Your task to perform on an android device: Search for "panasonic triple a" on amazon, select the first entry, add it to the cart, then select checkout. Image 0: 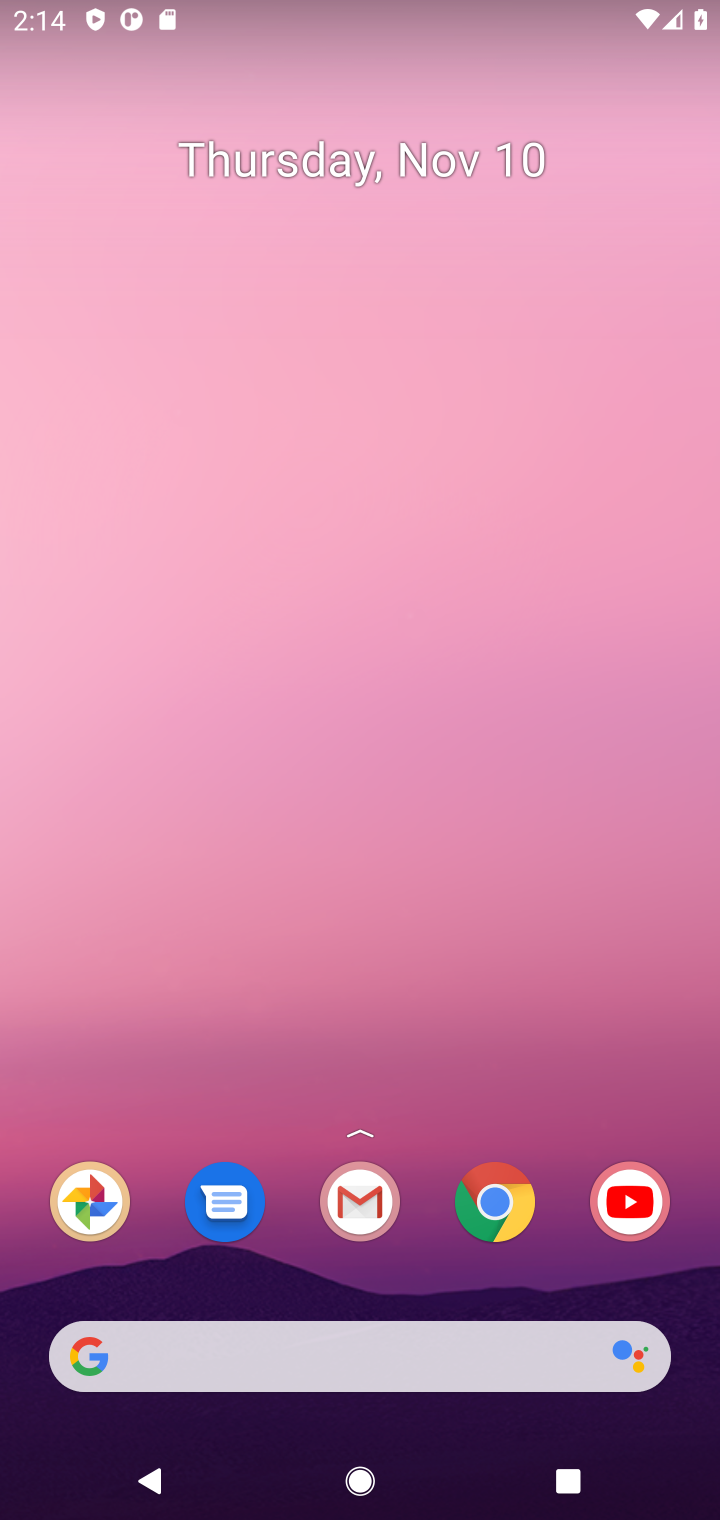
Step 0: click (502, 1198)
Your task to perform on an android device: Search for "panasonic triple a" on amazon, select the first entry, add it to the cart, then select checkout. Image 1: 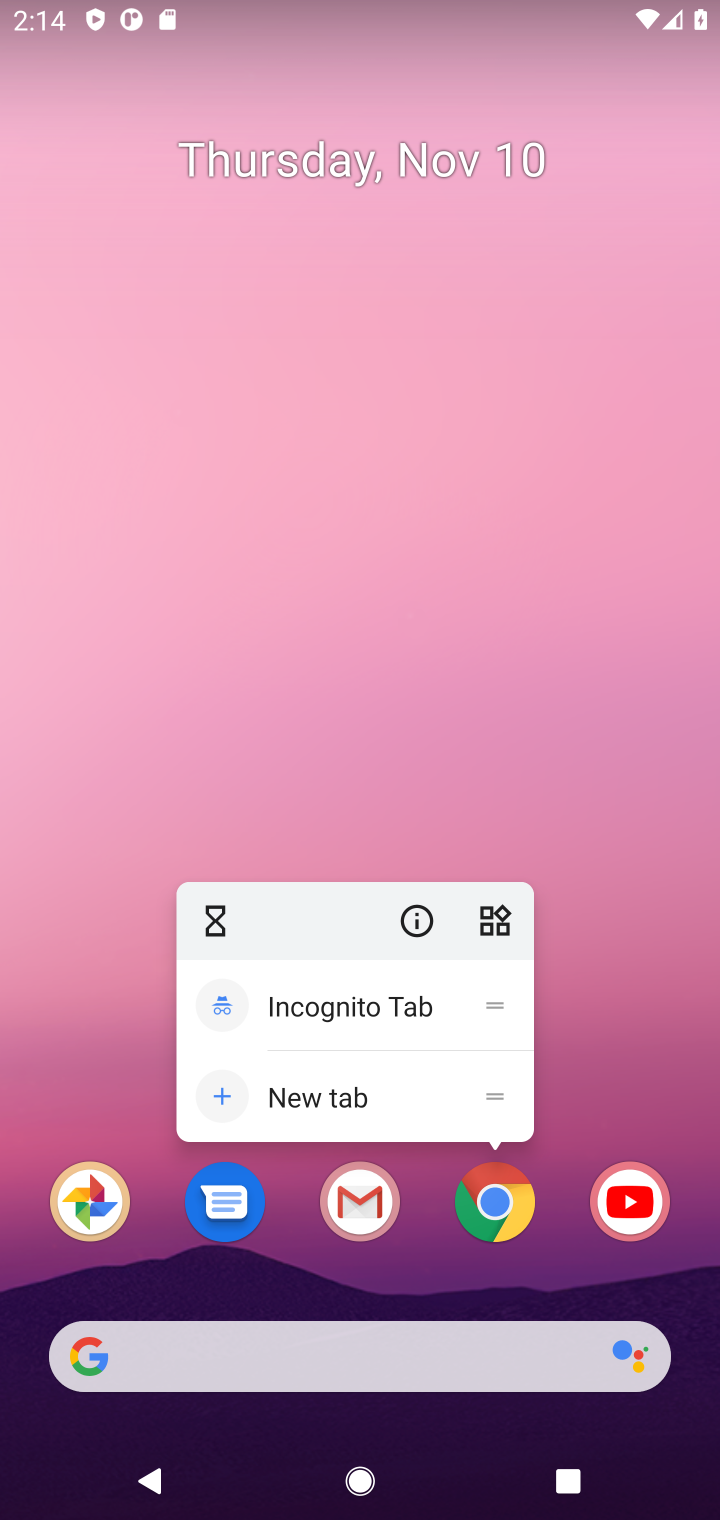
Step 1: click (498, 1218)
Your task to perform on an android device: Search for "panasonic triple a" on amazon, select the first entry, add it to the cart, then select checkout. Image 2: 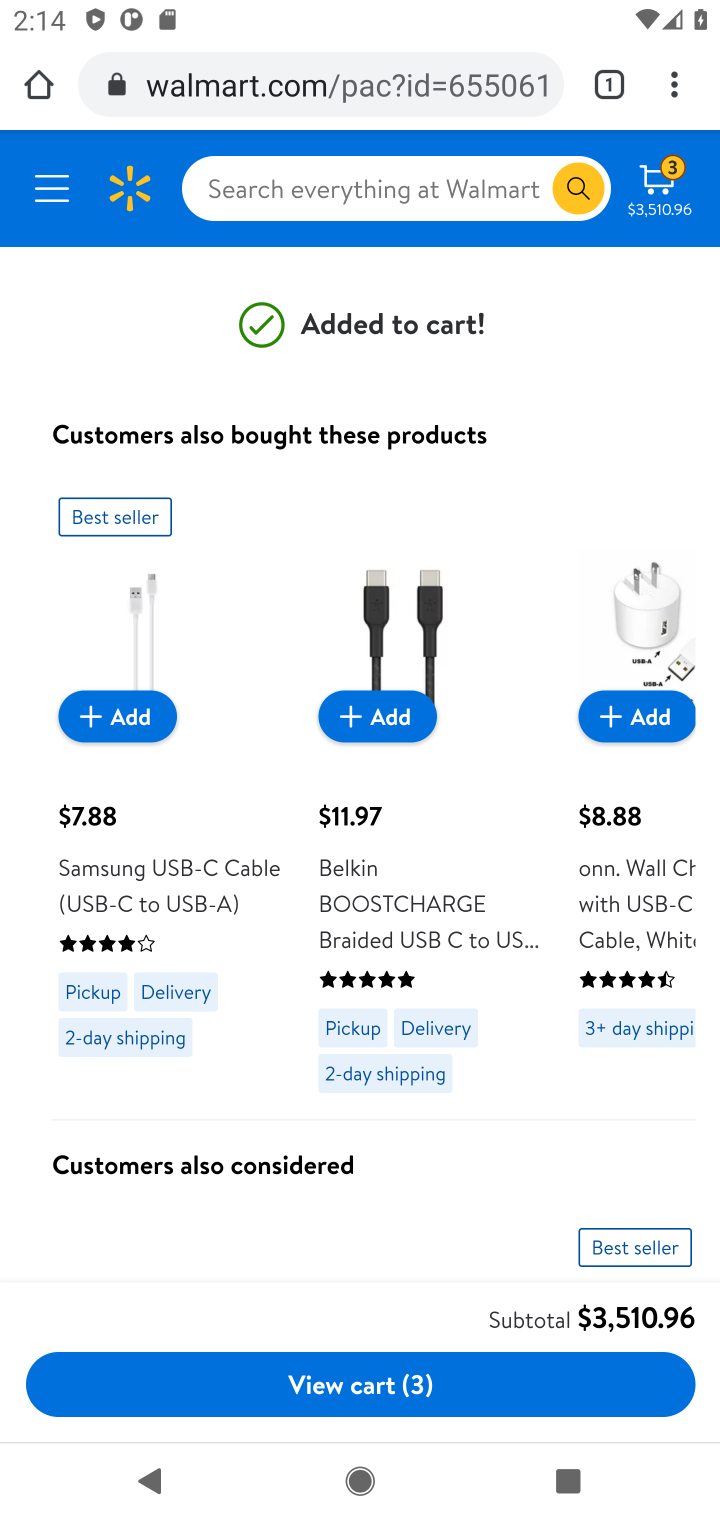
Step 2: click (333, 83)
Your task to perform on an android device: Search for "panasonic triple a" on amazon, select the first entry, add it to the cart, then select checkout. Image 3: 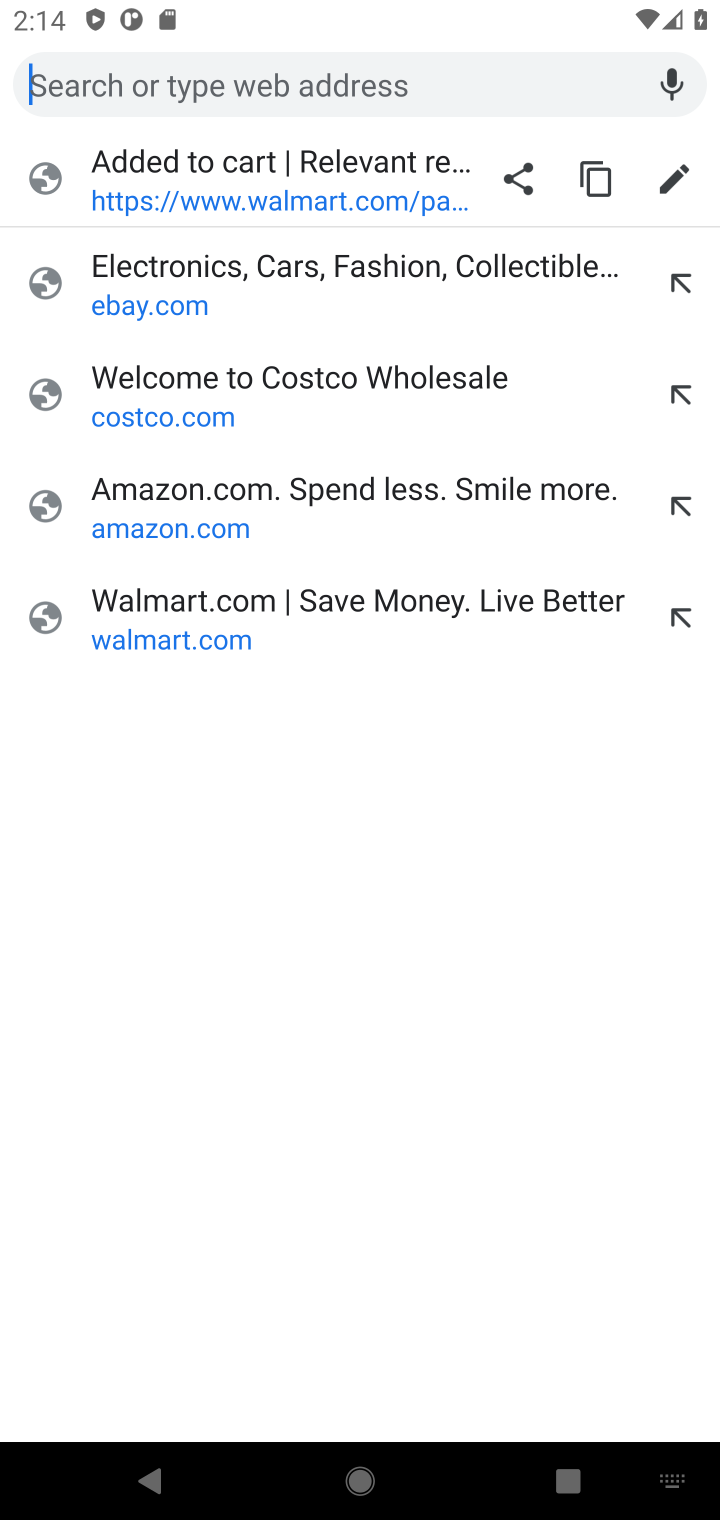
Step 3: click (183, 494)
Your task to perform on an android device: Search for "panasonic triple a" on amazon, select the first entry, add it to the cart, then select checkout. Image 4: 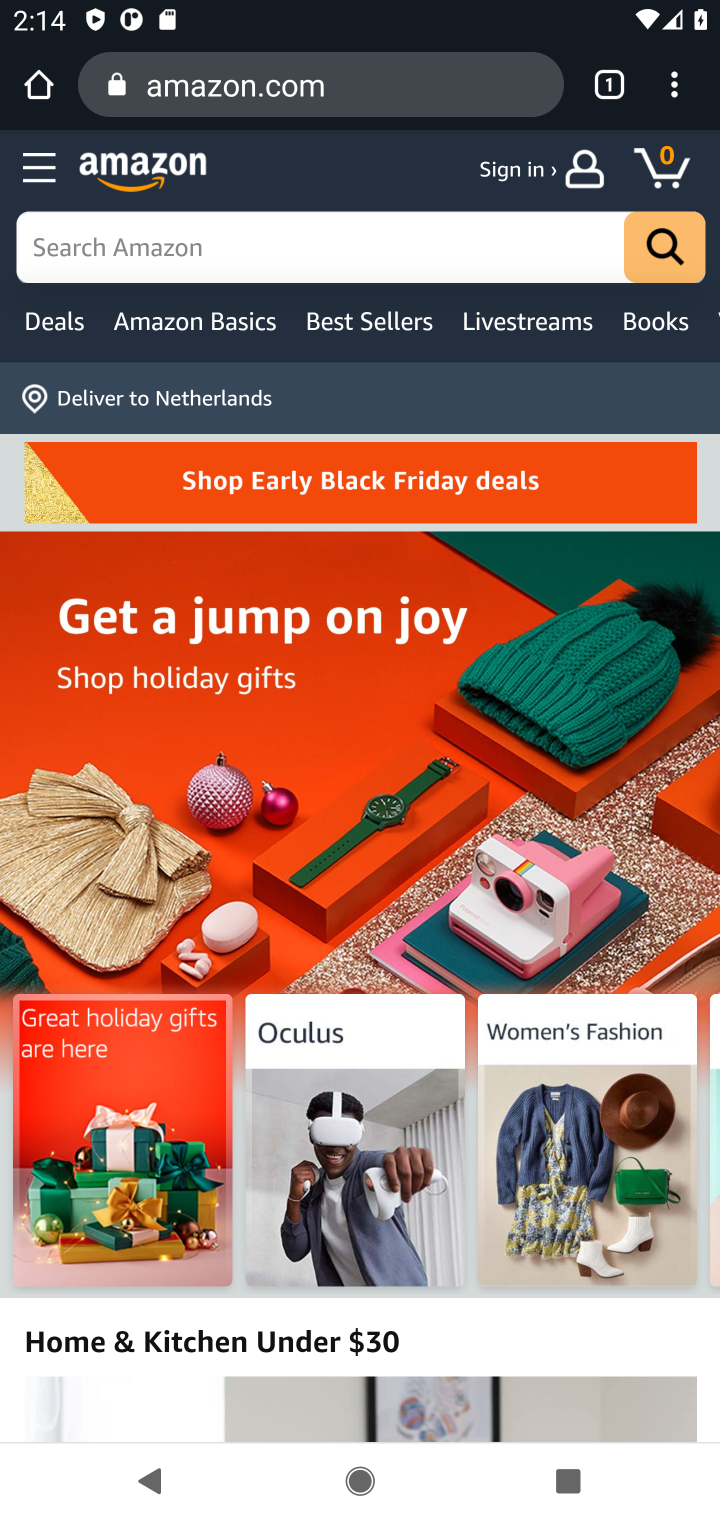
Step 4: click (443, 238)
Your task to perform on an android device: Search for "panasonic triple a" on amazon, select the first entry, add it to the cart, then select checkout. Image 5: 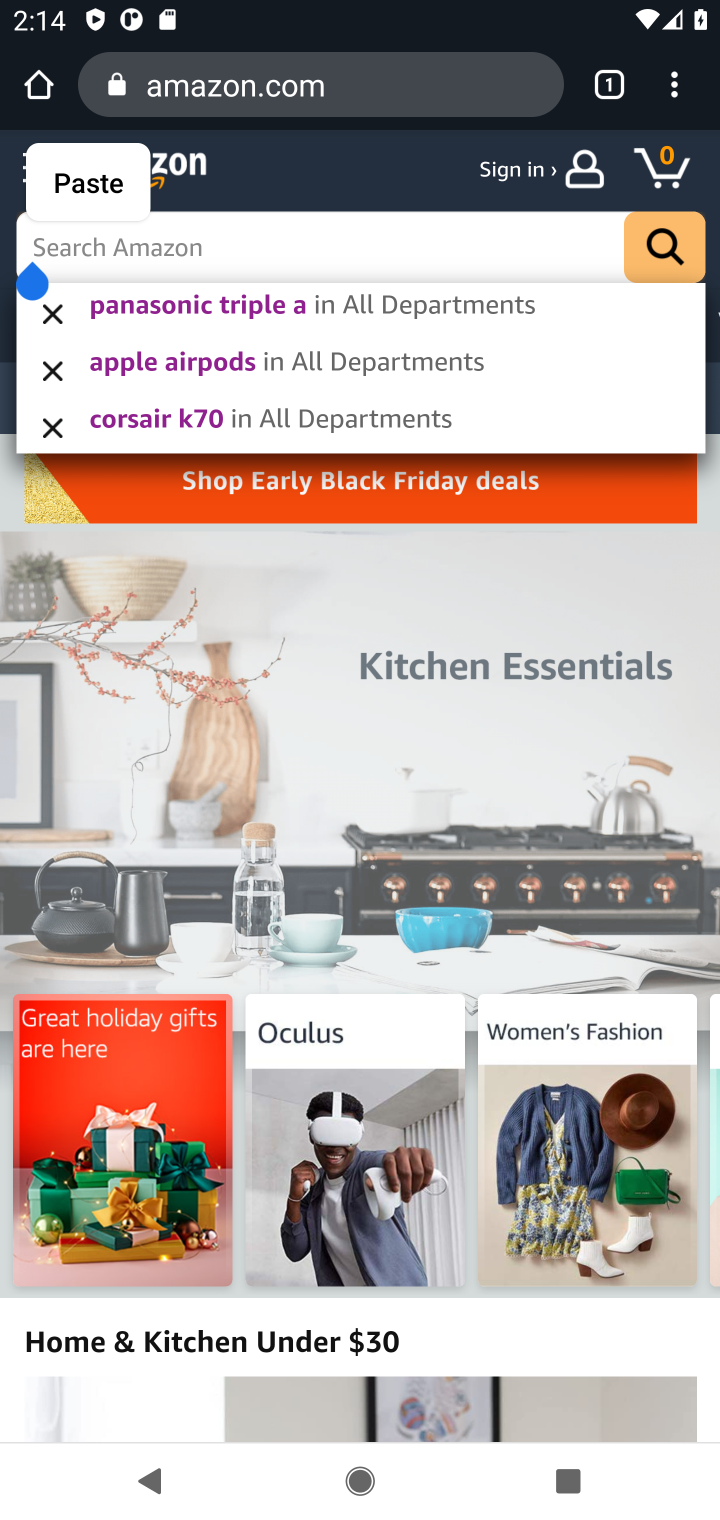
Step 5: press enter
Your task to perform on an android device: Search for "panasonic triple a" on amazon, select the first entry, add it to the cart, then select checkout. Image 6: 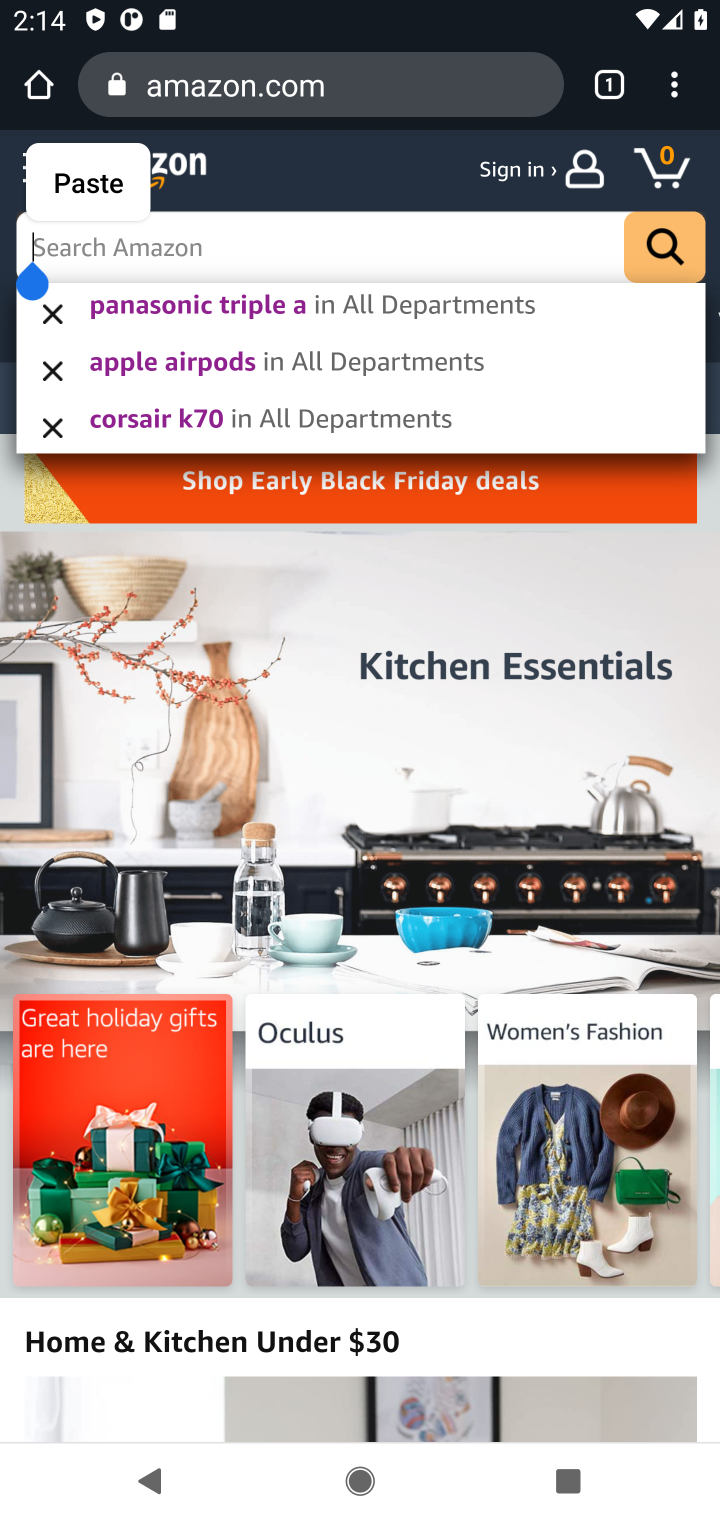
Step 6: type "panasonic triple a"
Your task to perform on an android device: Search for "panasonic triple a" on amazon, select the first entry, add it to the cart, then select checkout. Image 7: 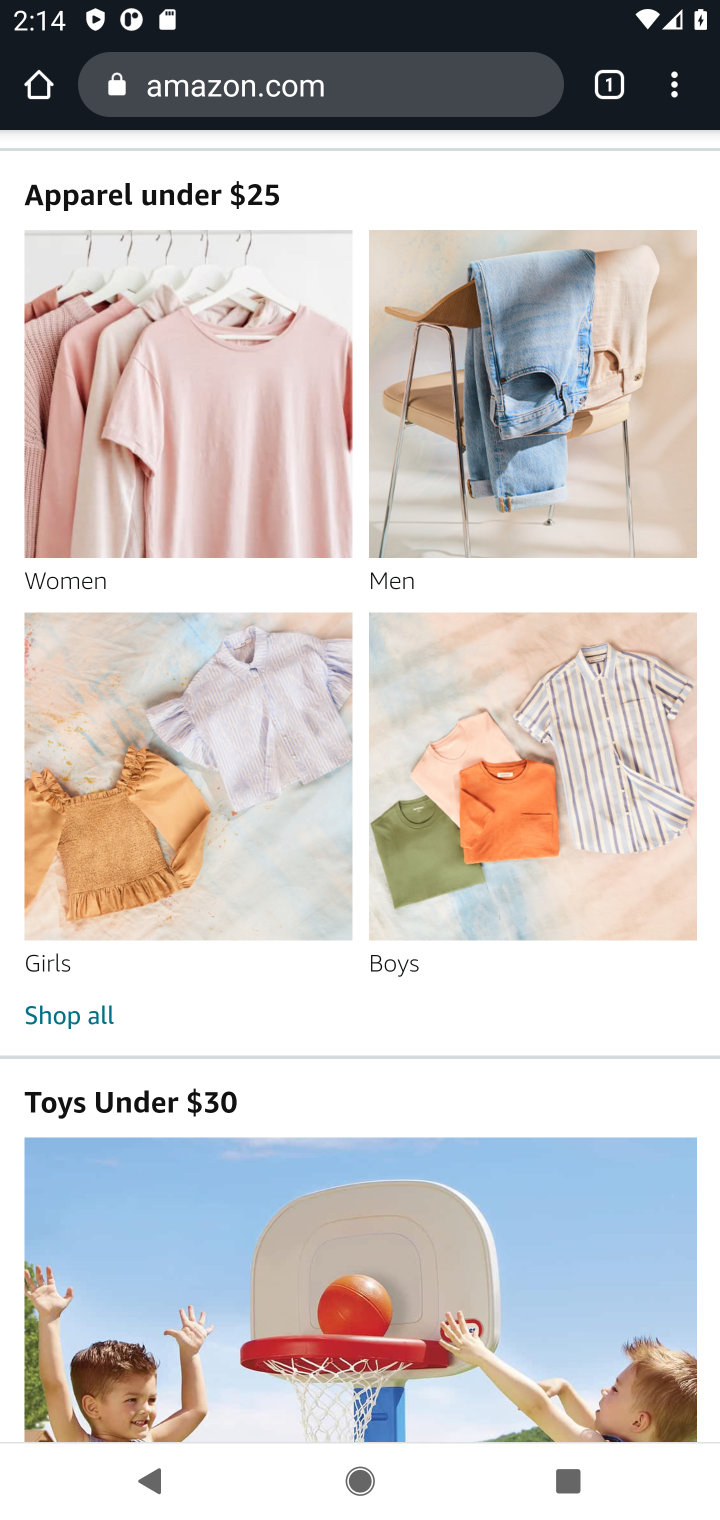
Step 7: drag from (402, 508) to (440, 925)
Your task to perform on an android device: Search for "panasonic triple a" on amazon, select the first entry, add it to the cart, then select checkout. Image 8: 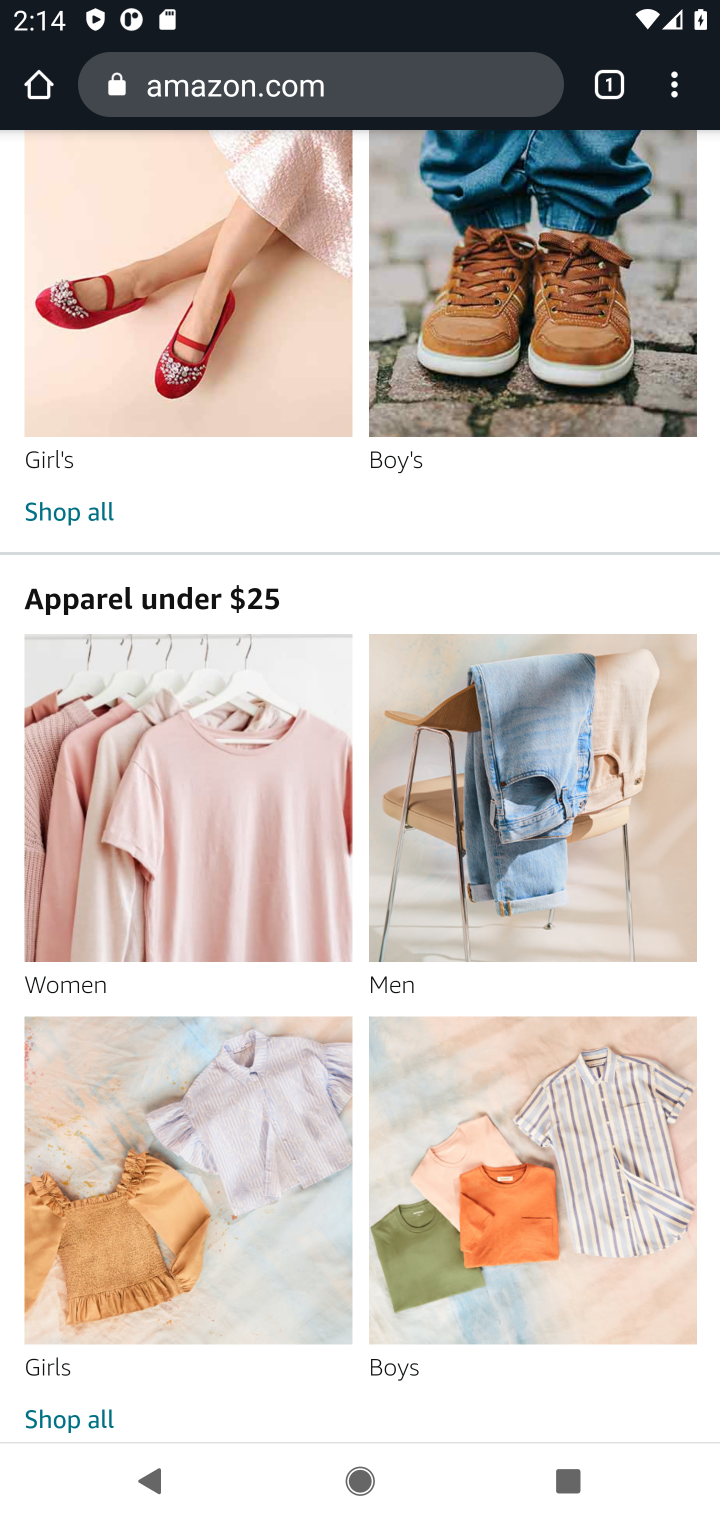
Step 8: drag from (315, 958) to (285, 1215)
Your task to perform on an android device: Search for "panasonic triple a" on amazon, select the first entry, add it to the cart, then select checkout. Image 9: 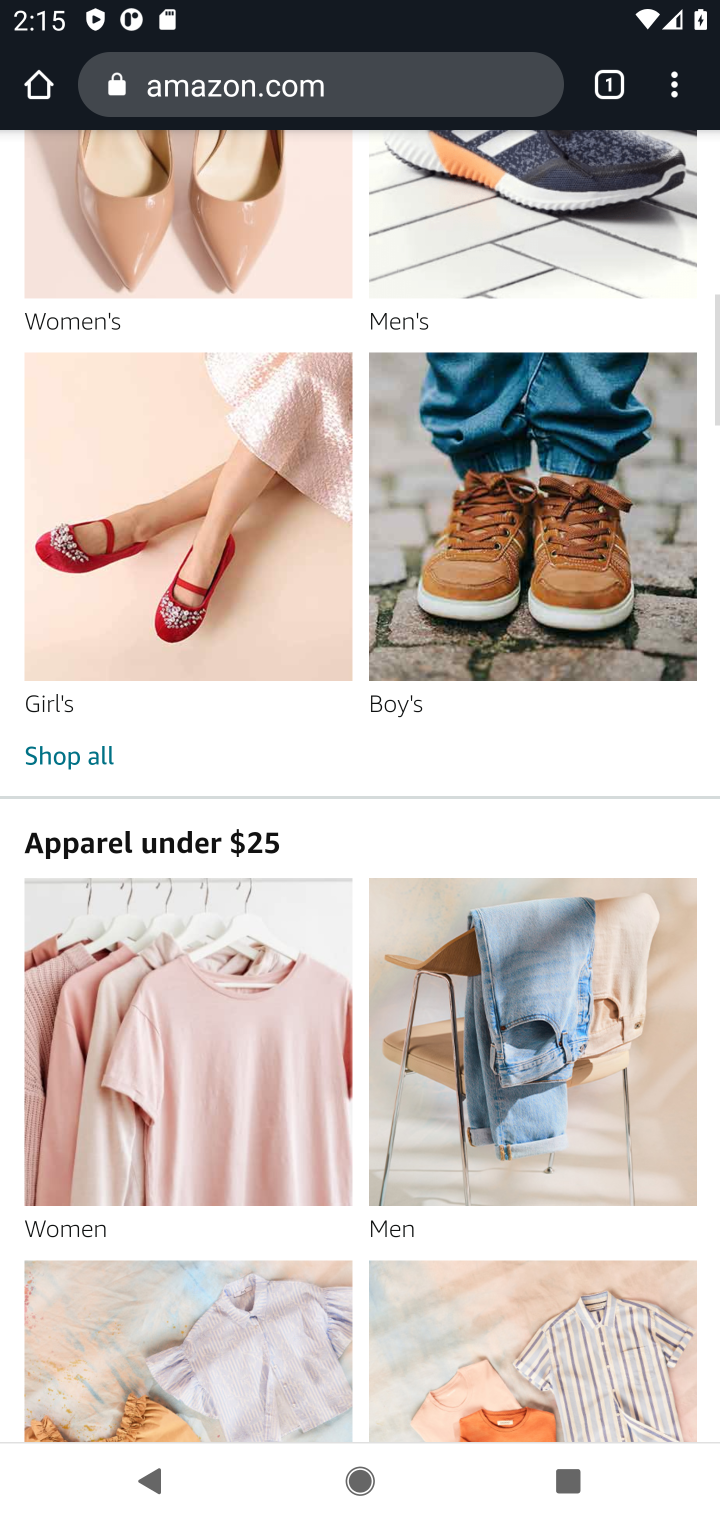
Step 9: drag from (429, 490) to (416, 1171)
Your task to perform on an android device: Search for "panasonic triple a" on amazon, select the first entry, add it to the cart, then select checkout. Image 10: 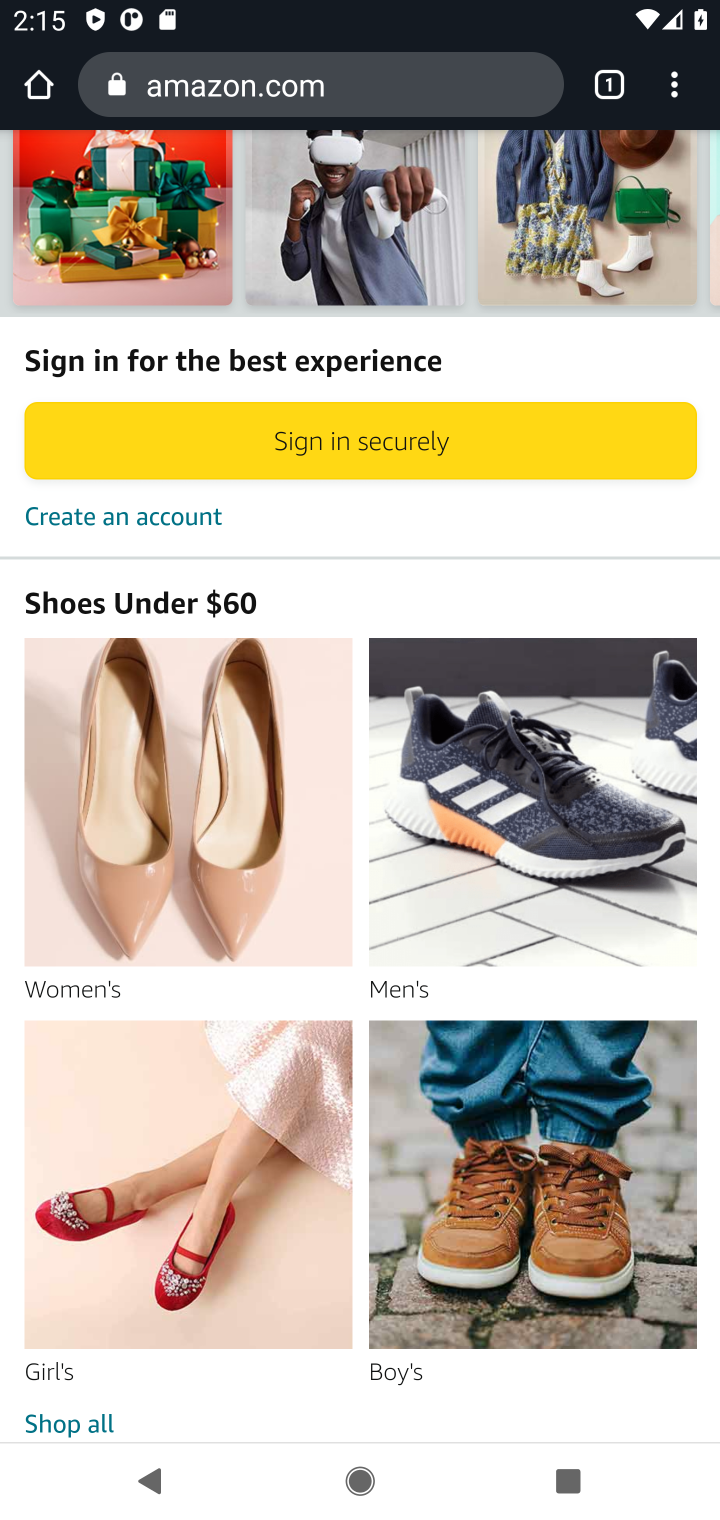
Step 10: drag from (320, 1040) to (317, 1266)
Your task to perform on an android device: Search for "panasonic triple a" on amazon, select the first entry, add it to the cart, then select checkout. Image 11: 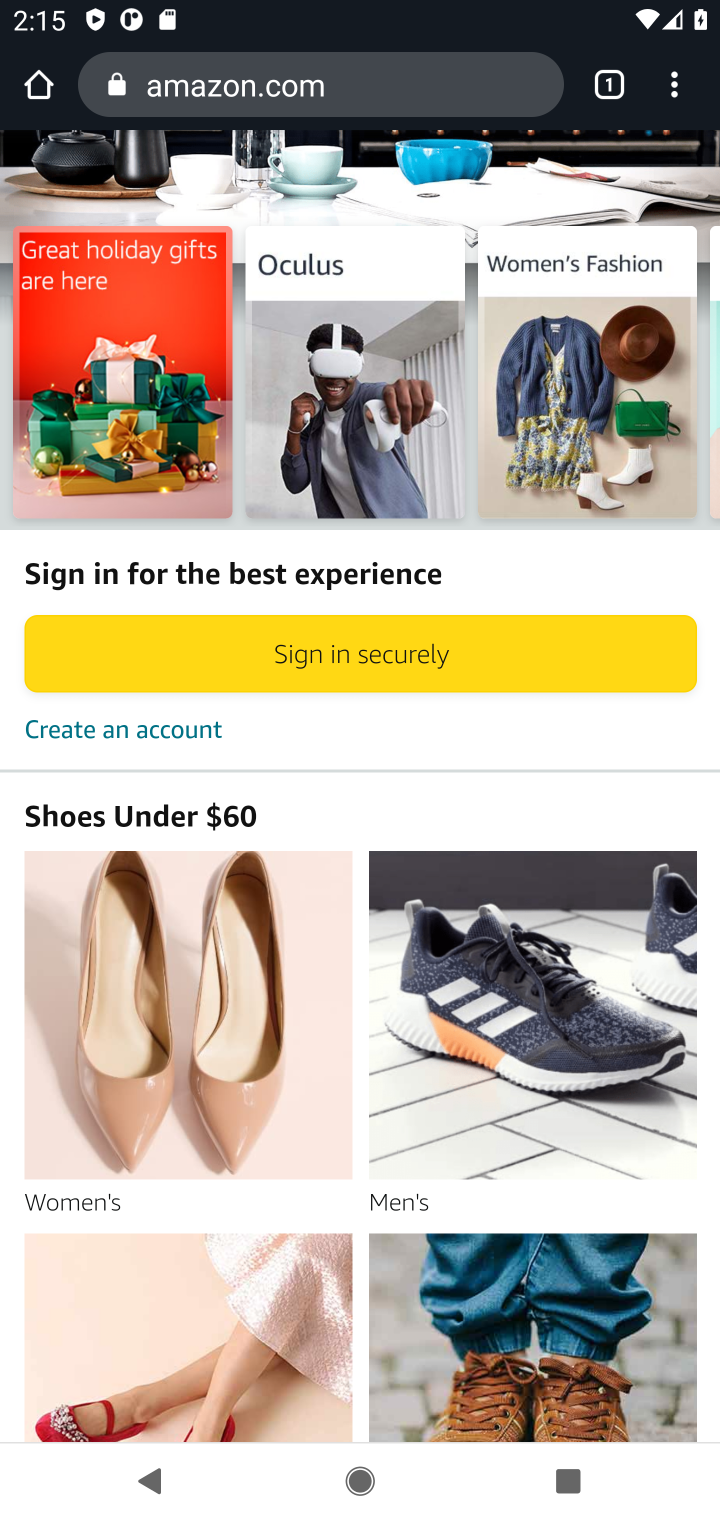
Step 11: drag from (431, 380) to (398, 1268)
Your task to perform on an android device: Search for "panasonic triple a" on amazon, select the first entry, add it to the cart, then select checkout. Image 12: 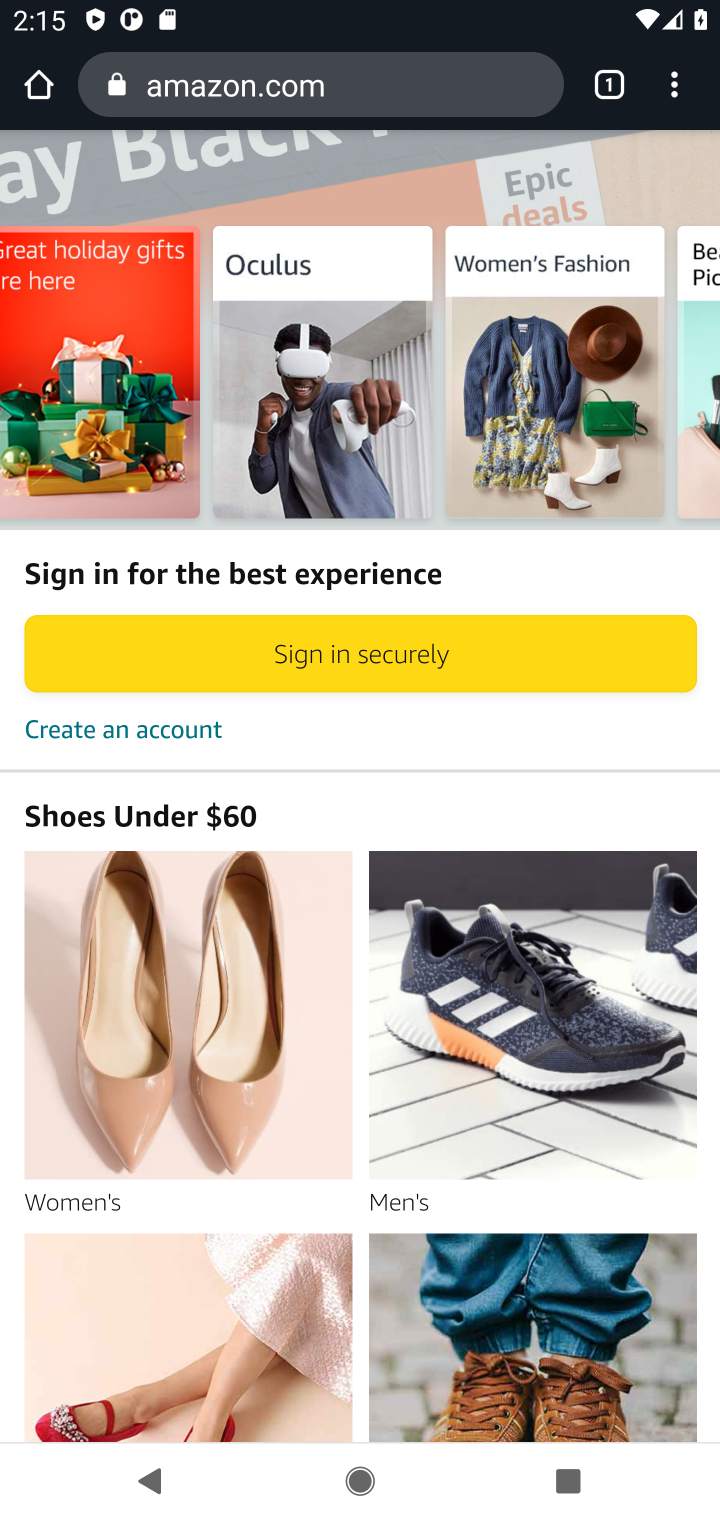
Step 12: press back button
Your task to perform on an android device: Search for "panasonic triple a" on amazon, select the first entry, add it to the cart, then select checkout. Image 13: 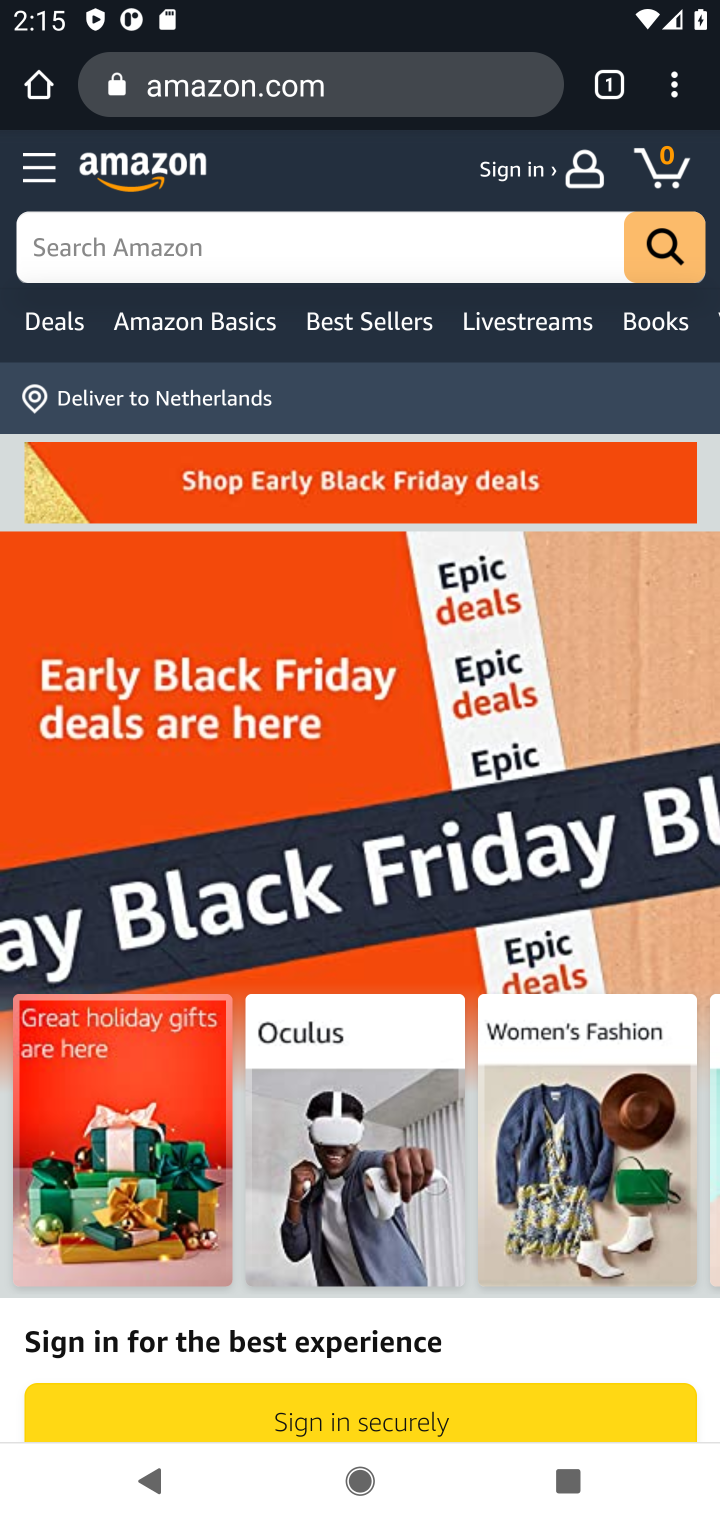
Step 13: click (396, 253)
Your task to perform on an android device: Search for "panasonic triple a" on amazon, select the first entry, add it to the cart, then select checkout. Image 14: 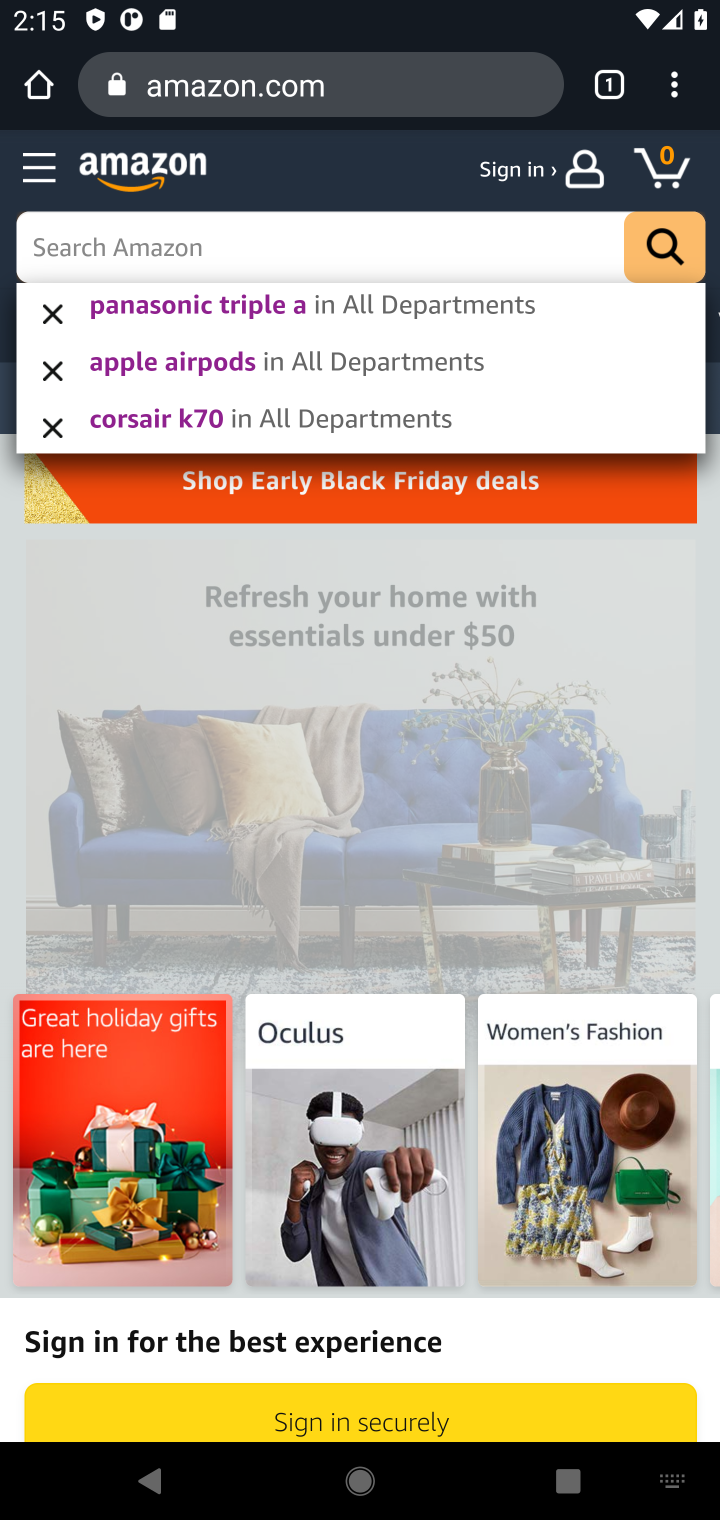
Step 14: type "panasonic triple a"
Your task to perform on an android device: Search for "panasonic triple a" on amazon, select the first entry, add it to the cart, then select checkout. Image 15: 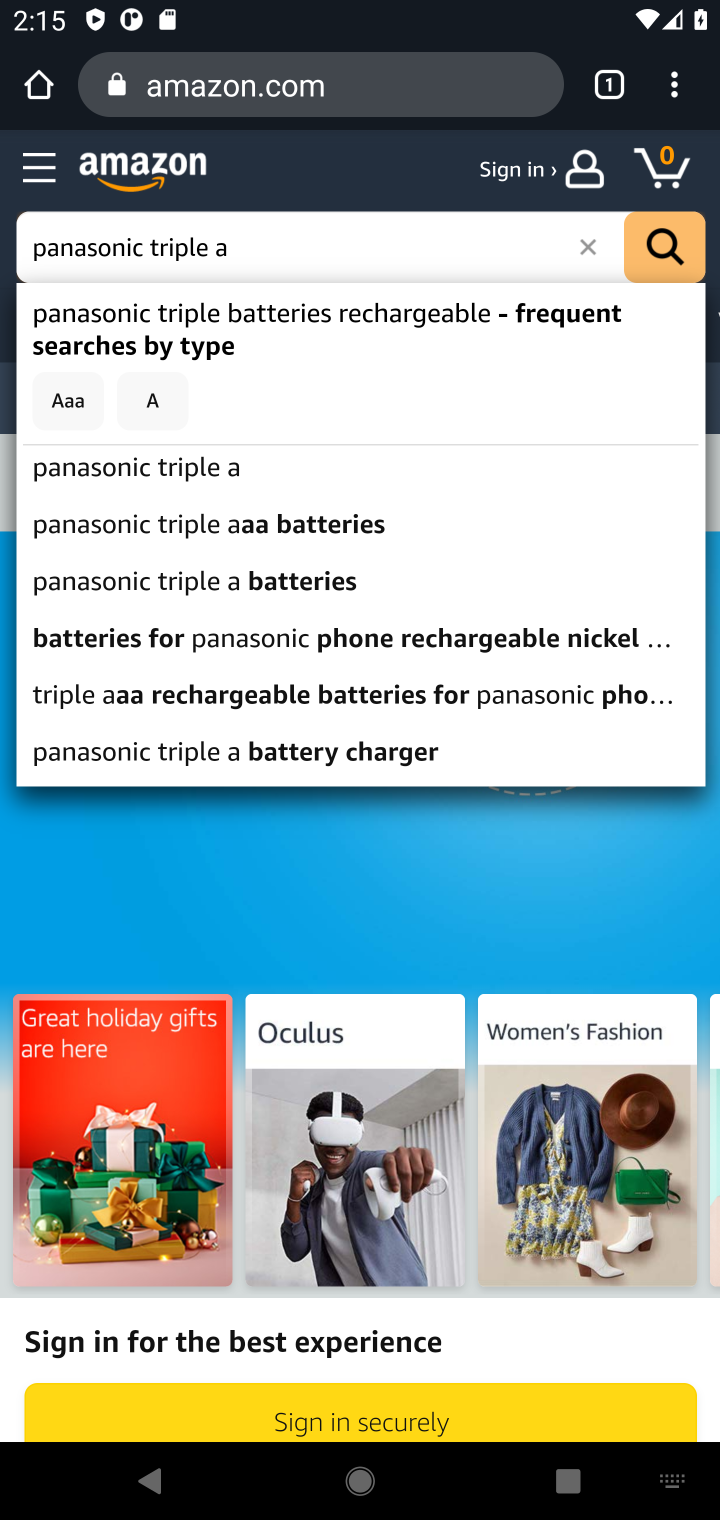
Step 15: click (194, 456)
Your task to perform on an android device: Search for "panasonic triple a" on amazon, select the first entry, add it to the cart, then select checkout. Image 16: 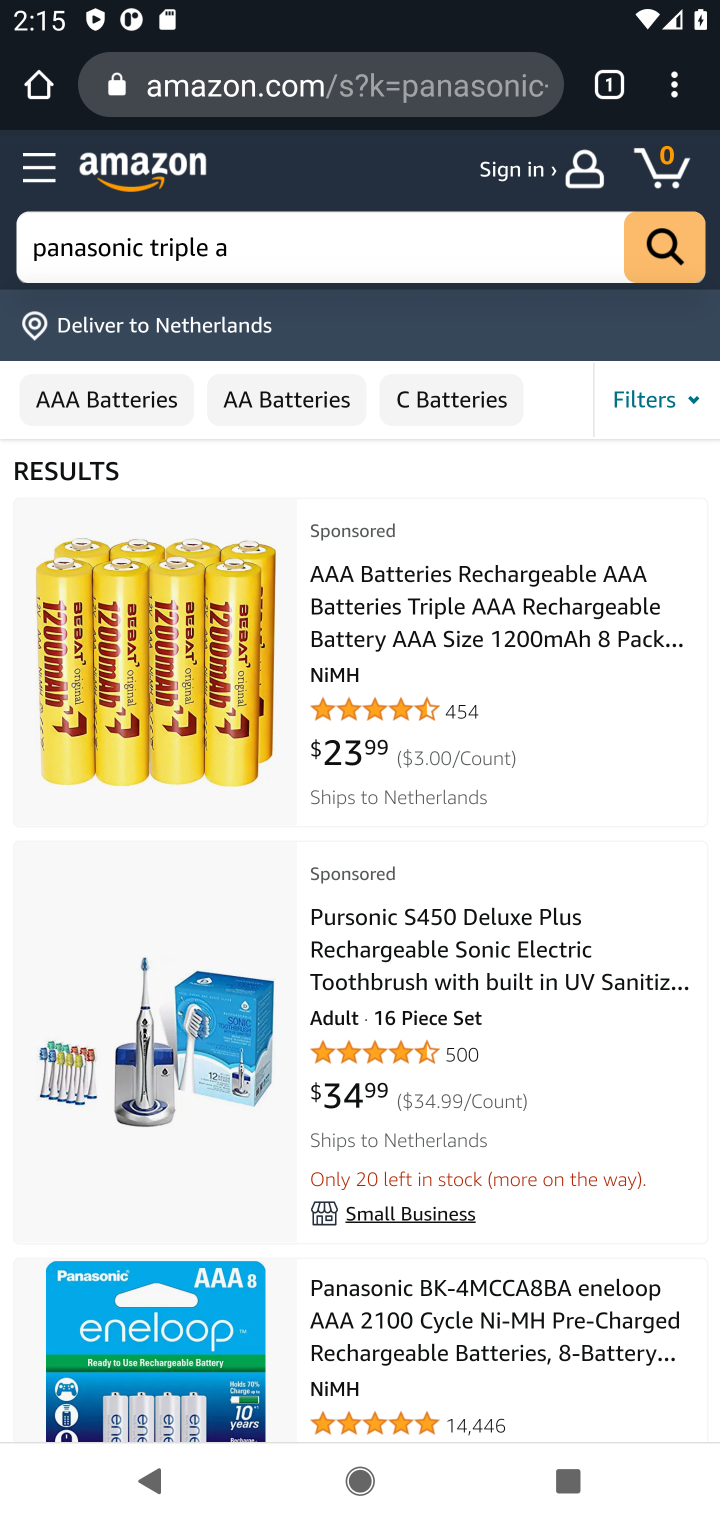
Step 16: click (143, 1287)
Your task to perform on an android device: Search for "panasonic triple a" on amazon, select the first entry, add it to the cart, then select checkout. Image 17: 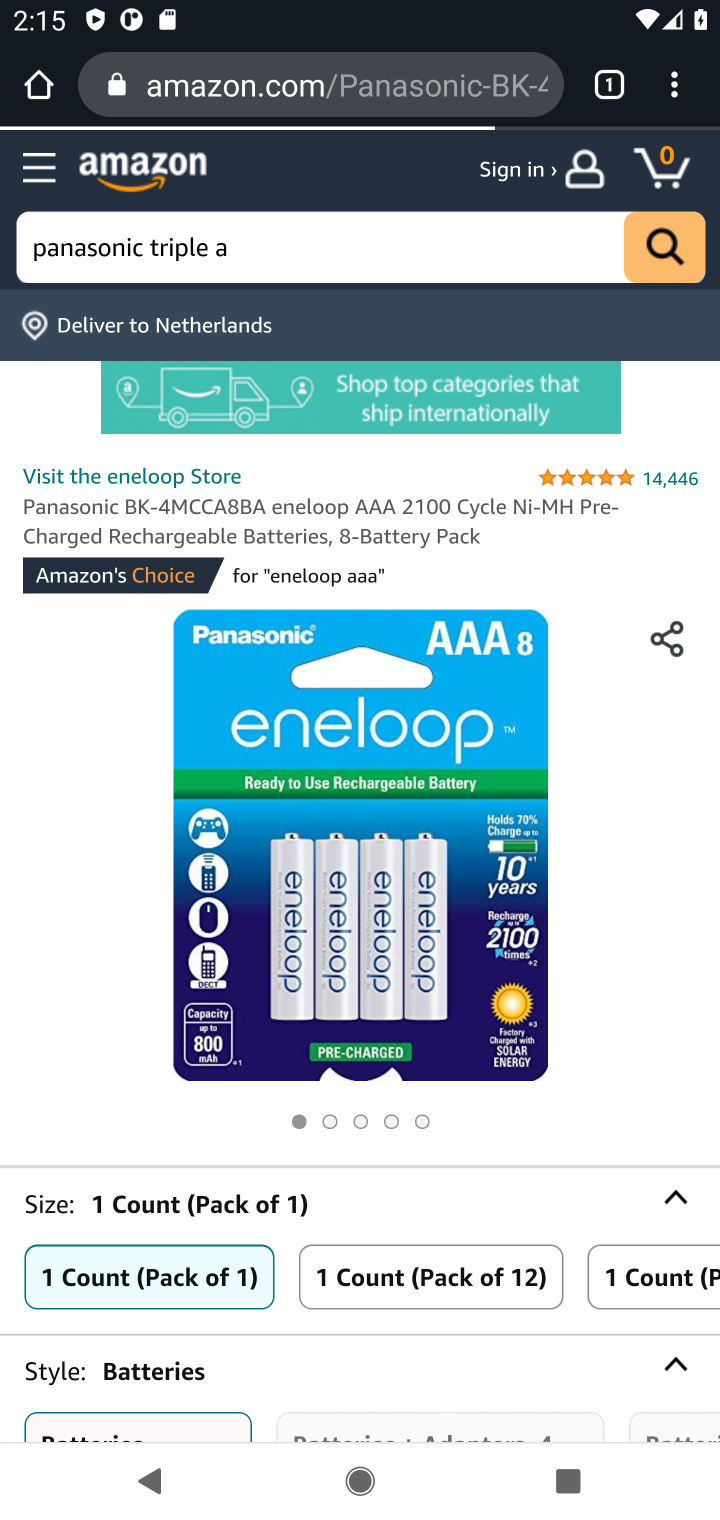
Step 17: drag from (473, 924) to (546, 181)
Your task to perform on an android device: Search for "panasonic triple a" on amazon, select the first entry, add it to the cart, then select checkout. Image 18: 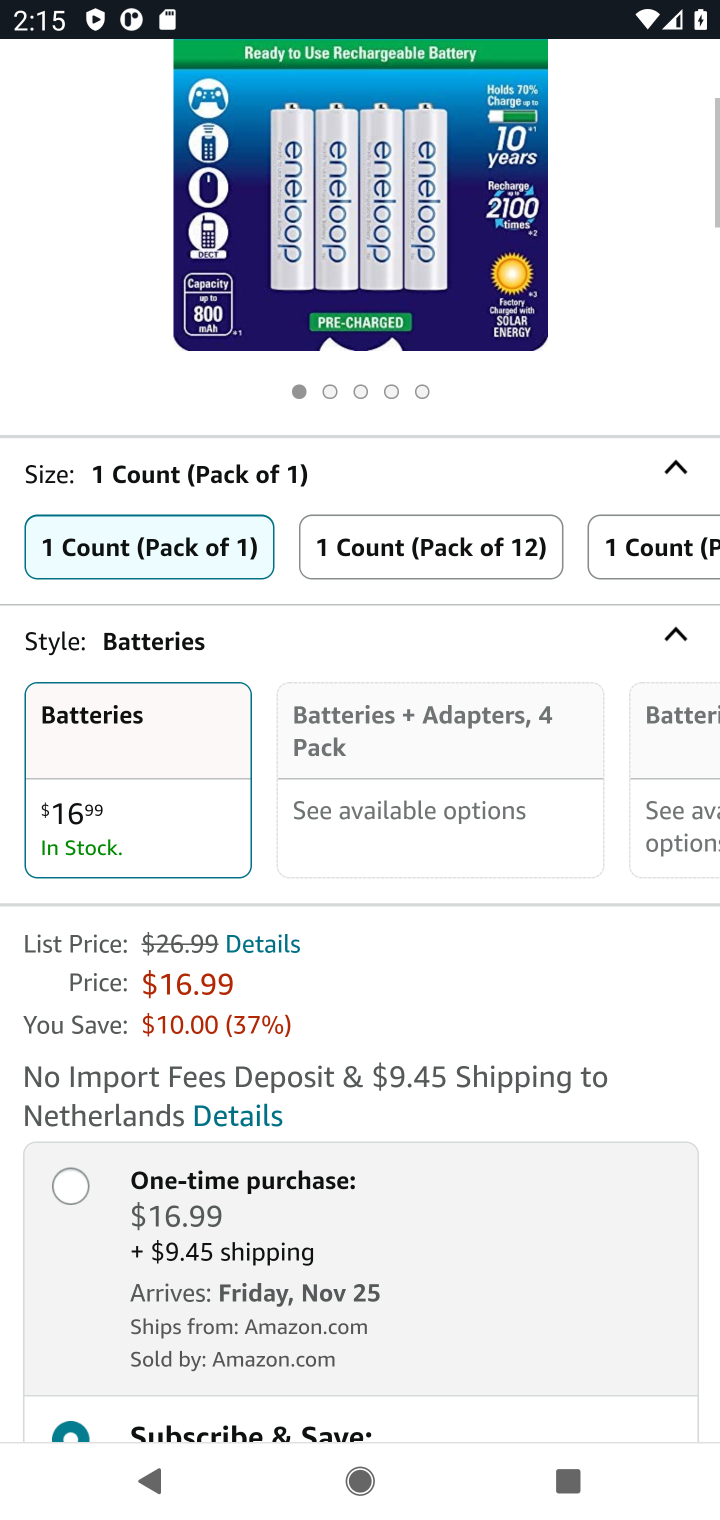
Step 18: drag from (541, 1163) to (545, 516)
Your task to perform on an android device: Search for "panasonic triple a" on amazon, select the first entry, add it to the cart, then select checkout. Image 19: 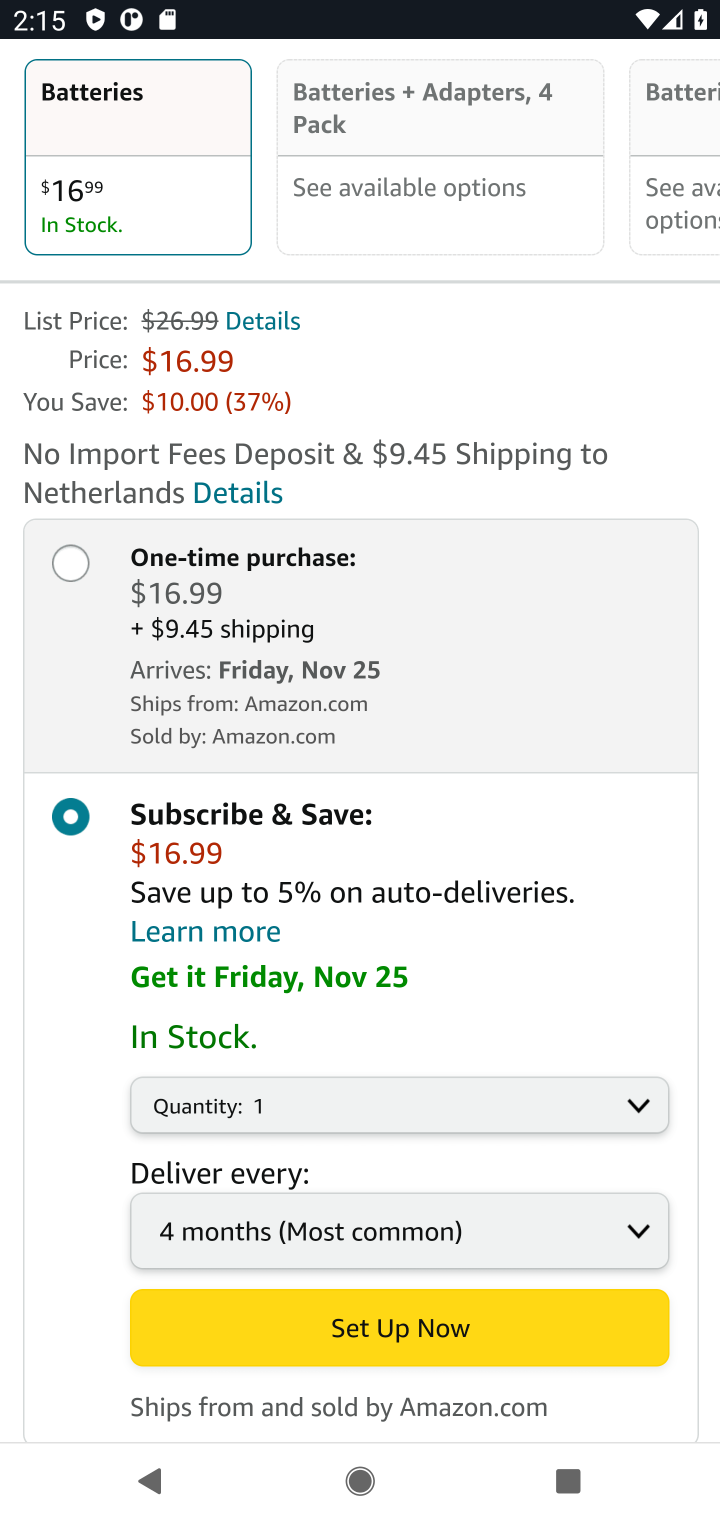
Step 19: drag from (479, 883) to (520, 690)
Your task to perform on an android device: Search for "panasonic triple a" on amazon, select the first entry, add it to the cart, then select checkout. Image 20: 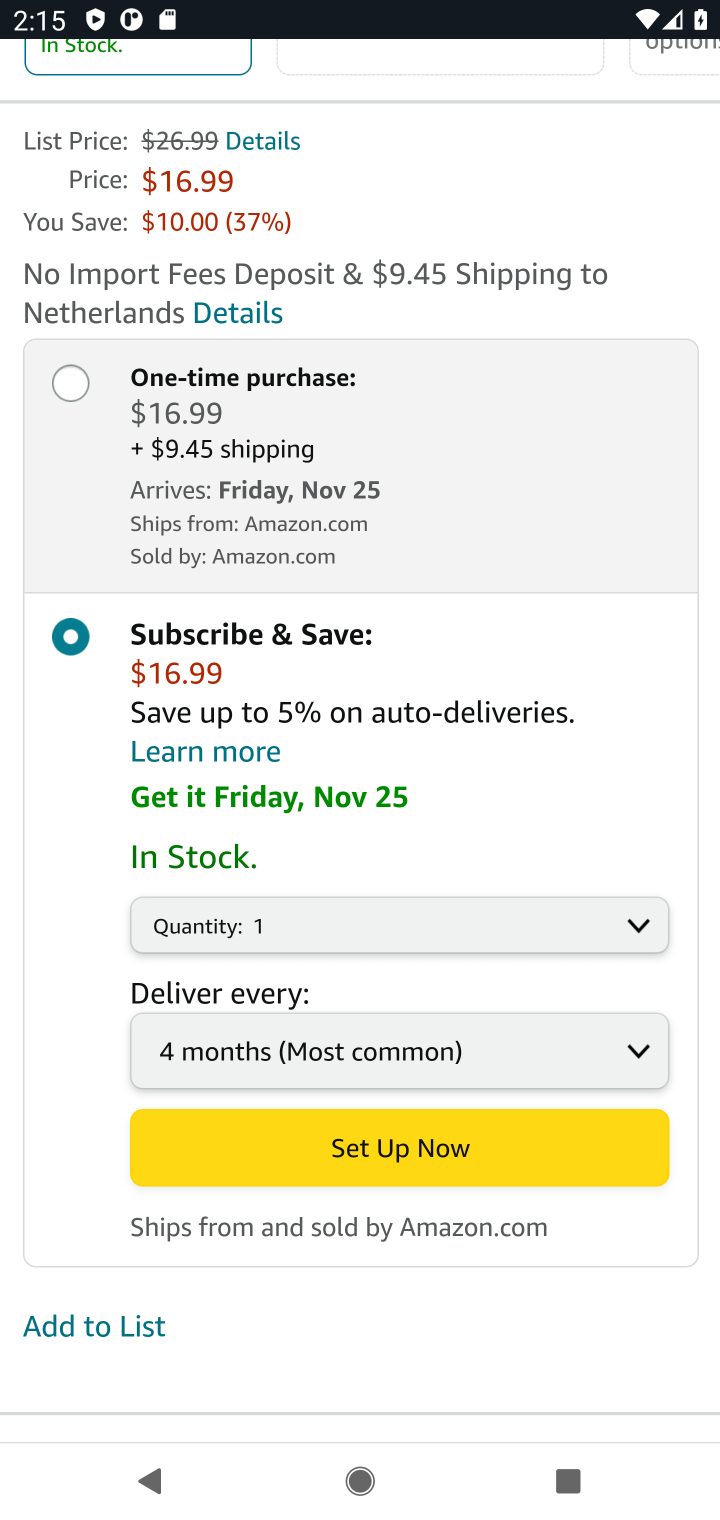
Step 20: press back button
Your task to perform on an android device: Search for "panasonic triple a" on amazon, select the first entry, add it to the cart, then select checkout. Image 21: 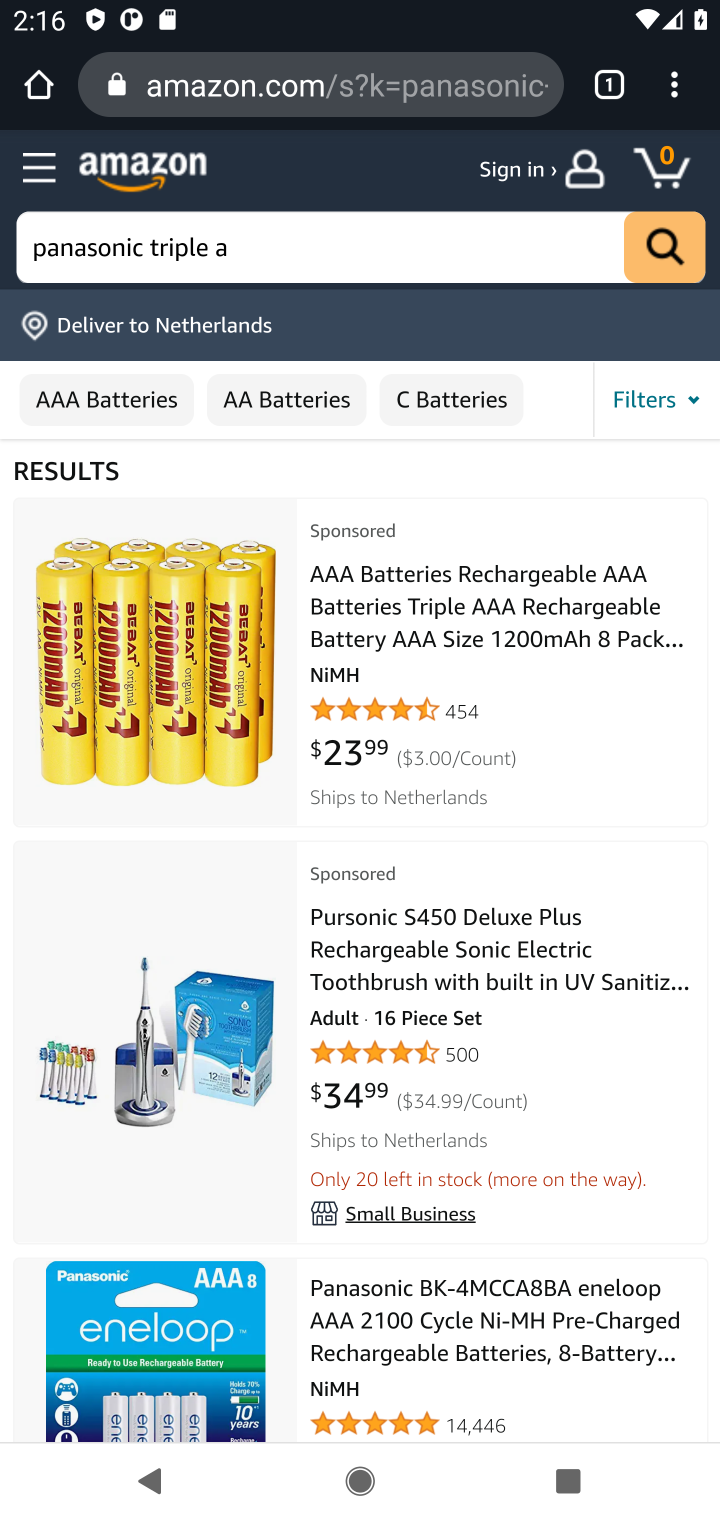
Step 21: drag from (534, 1295) to (625, 842)
Your task to perform on an android device: Search for "panasonic triple a" on amazon, select the first entry, add it to the cart, then select checkout. Image 22: 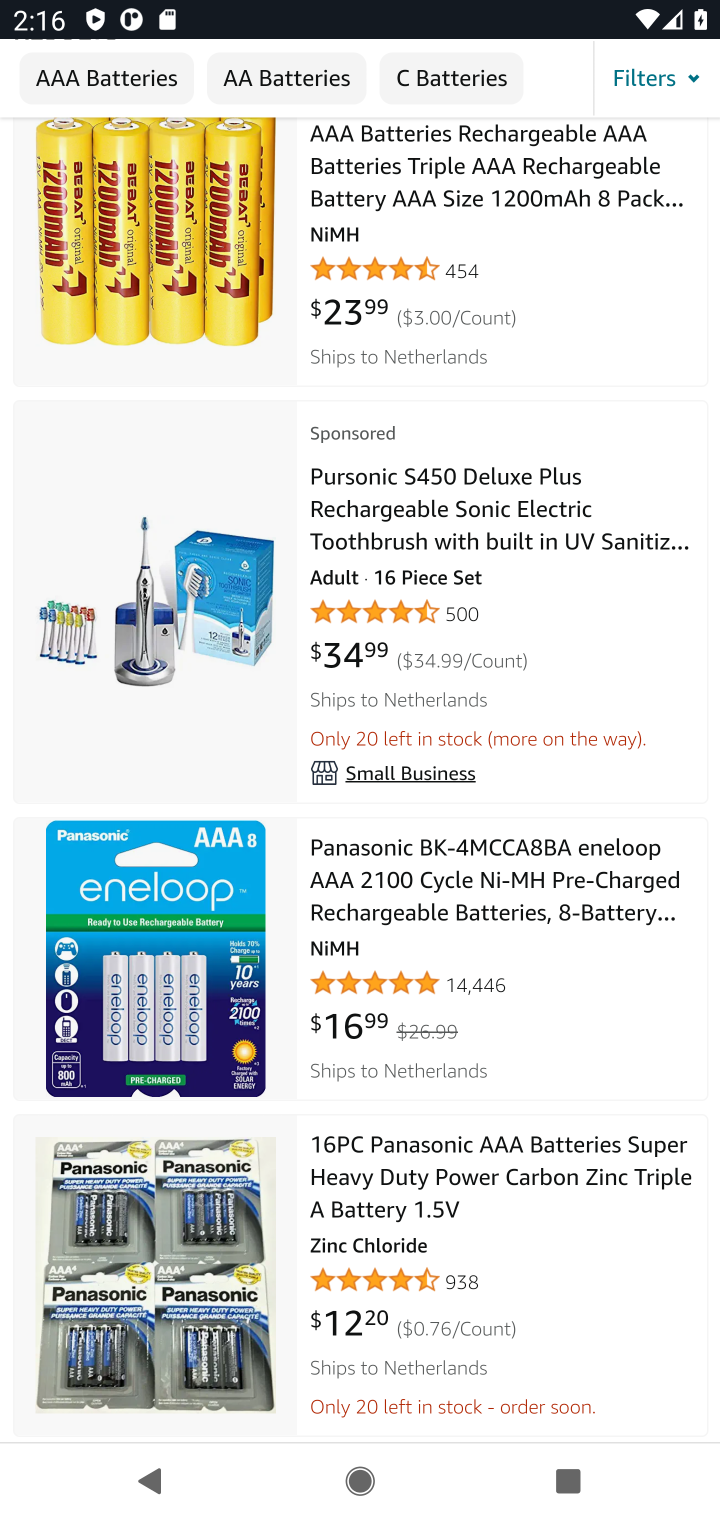
Step 22: click (167, 1256)
Your task to perform on an android device: Search for "panasonic triple a" on amazon, select the first entry, add it to the cart, then select checkout. Image 23: 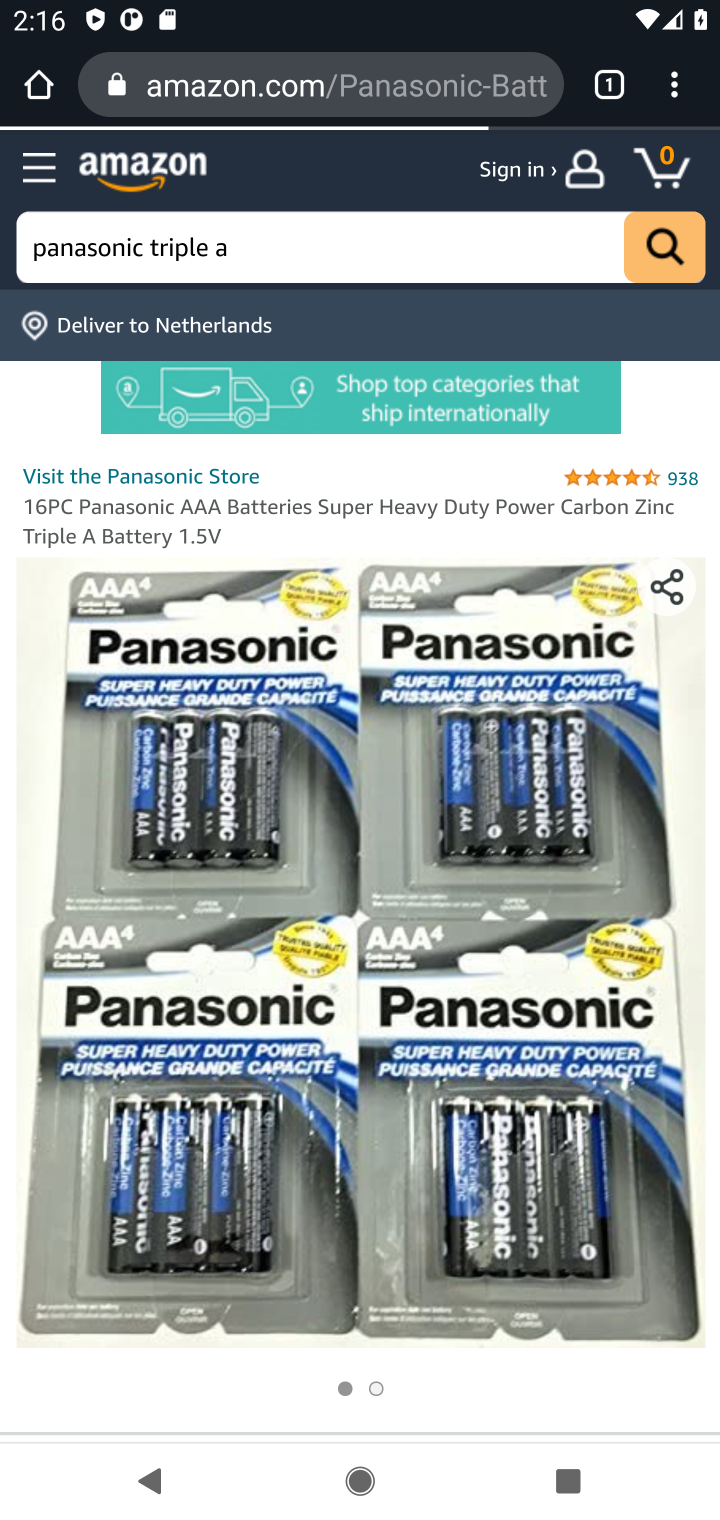
Step 23: drag from (382, 1051) to (402, 548)
Your task to perform on an android device: Search for "panasonic triple a" on amazon, select the first entry, add it to the cart, then select checkout. Image 24: 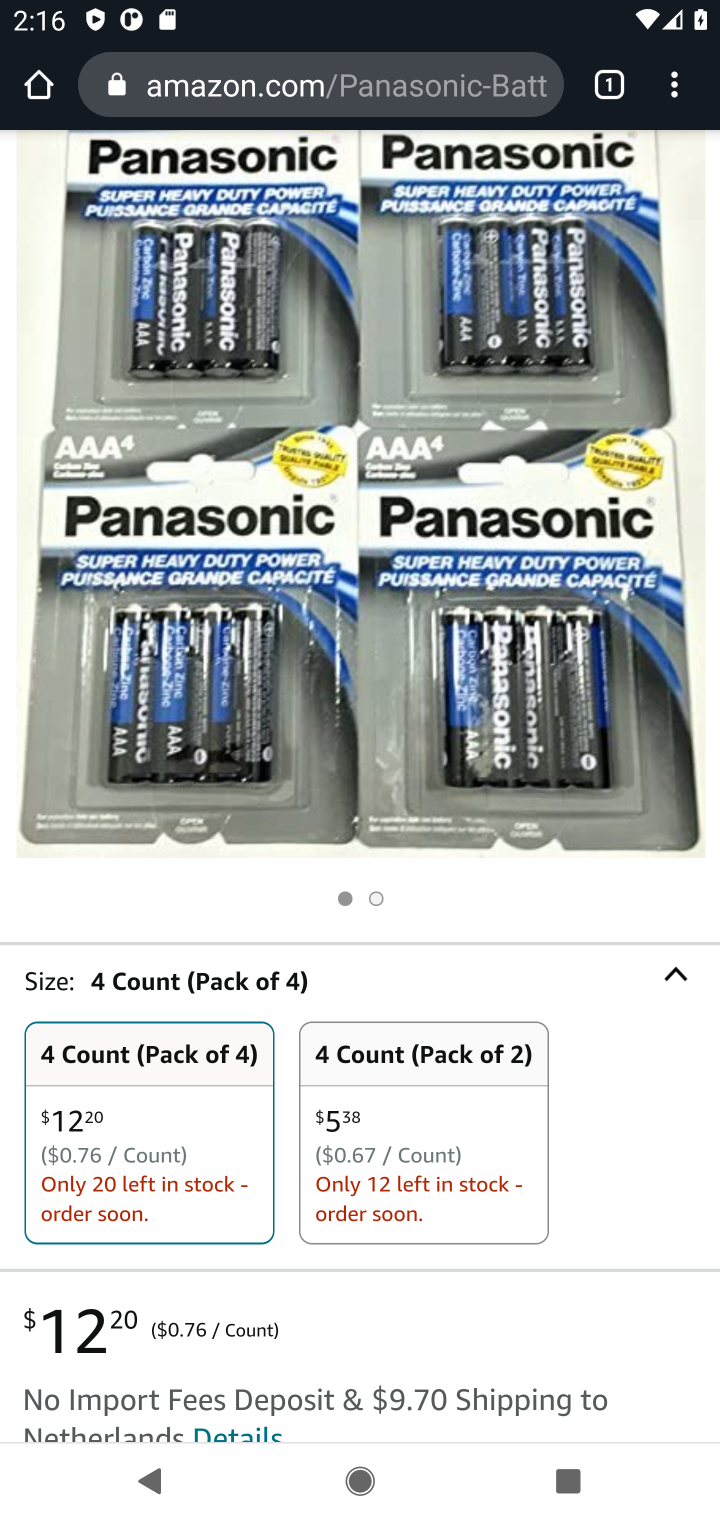
Step 24: drag from (575, 974) to (559, 685)
Your task to perform on an android device: Search for "panasonic triple a" on amazon, select the first entry, add it to the cart, then select checkout. Image 25: 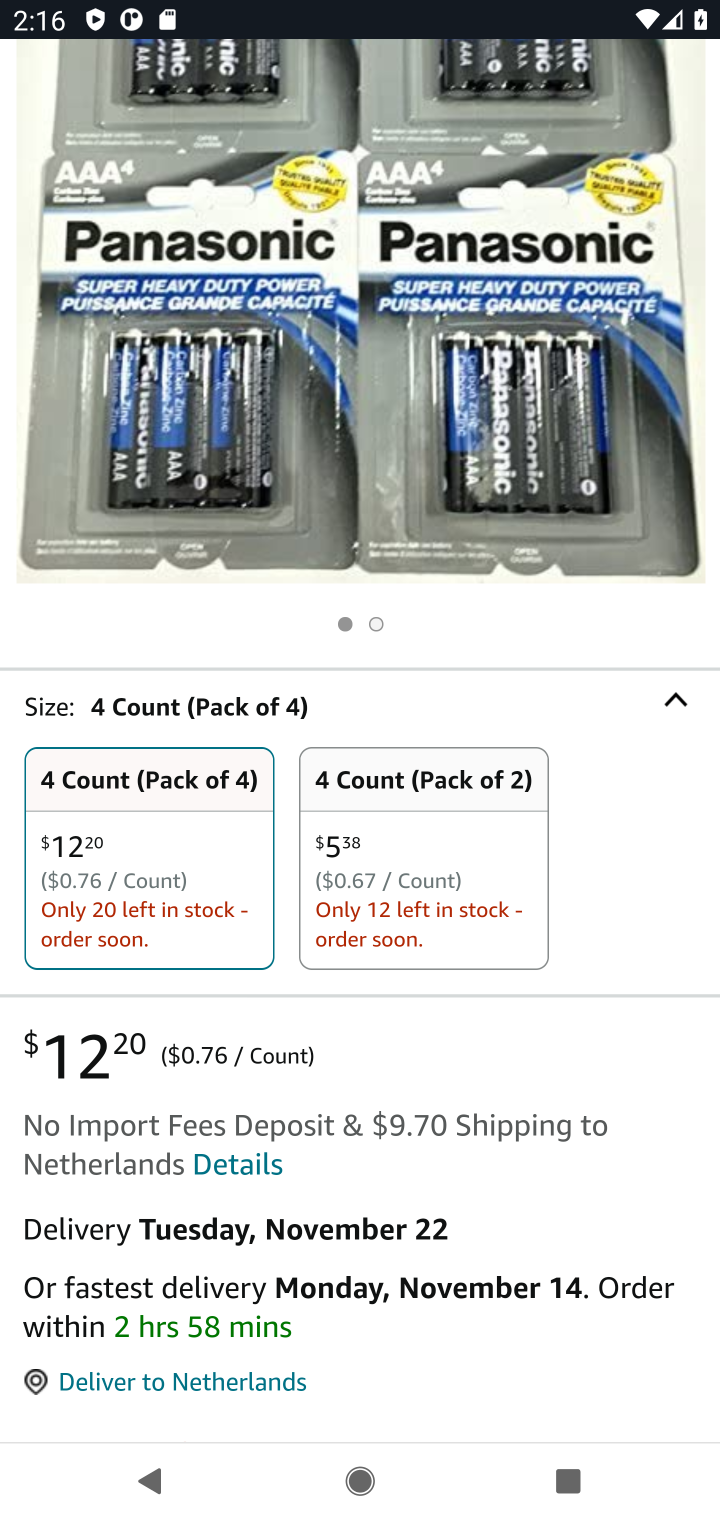
Step 25: drag from (666, 846) to (659, 717)
Your task to perform on an android device: Search for "panasonic triple a" on amazon, select the first entry, add it to the cart, then select checkout. Image 26: 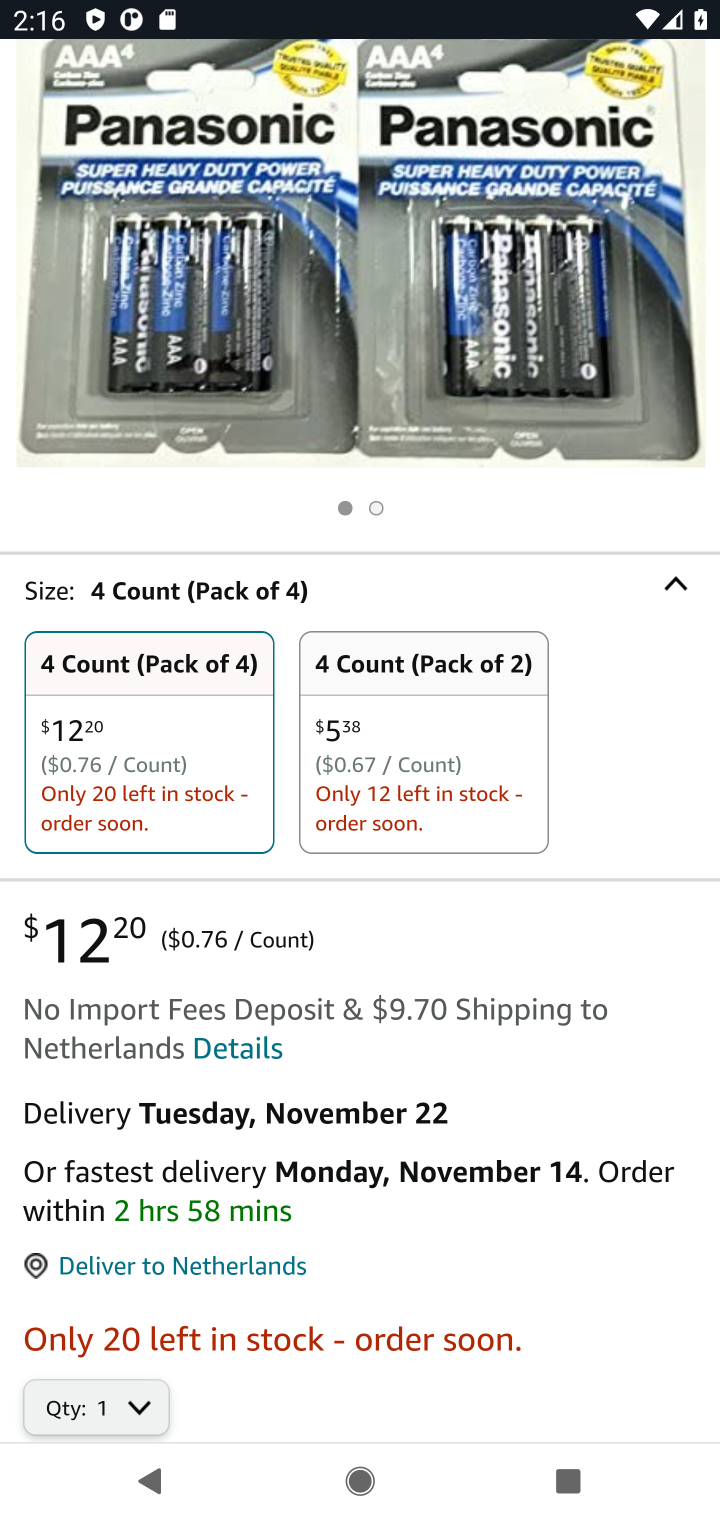
Step 26: drag from (584, 1217) to (586, 566)
Your task to perform on an android device: Search for "panasonic triple a" on amazon, select the first entry, add it to the cart, then select checkout. Image 27: 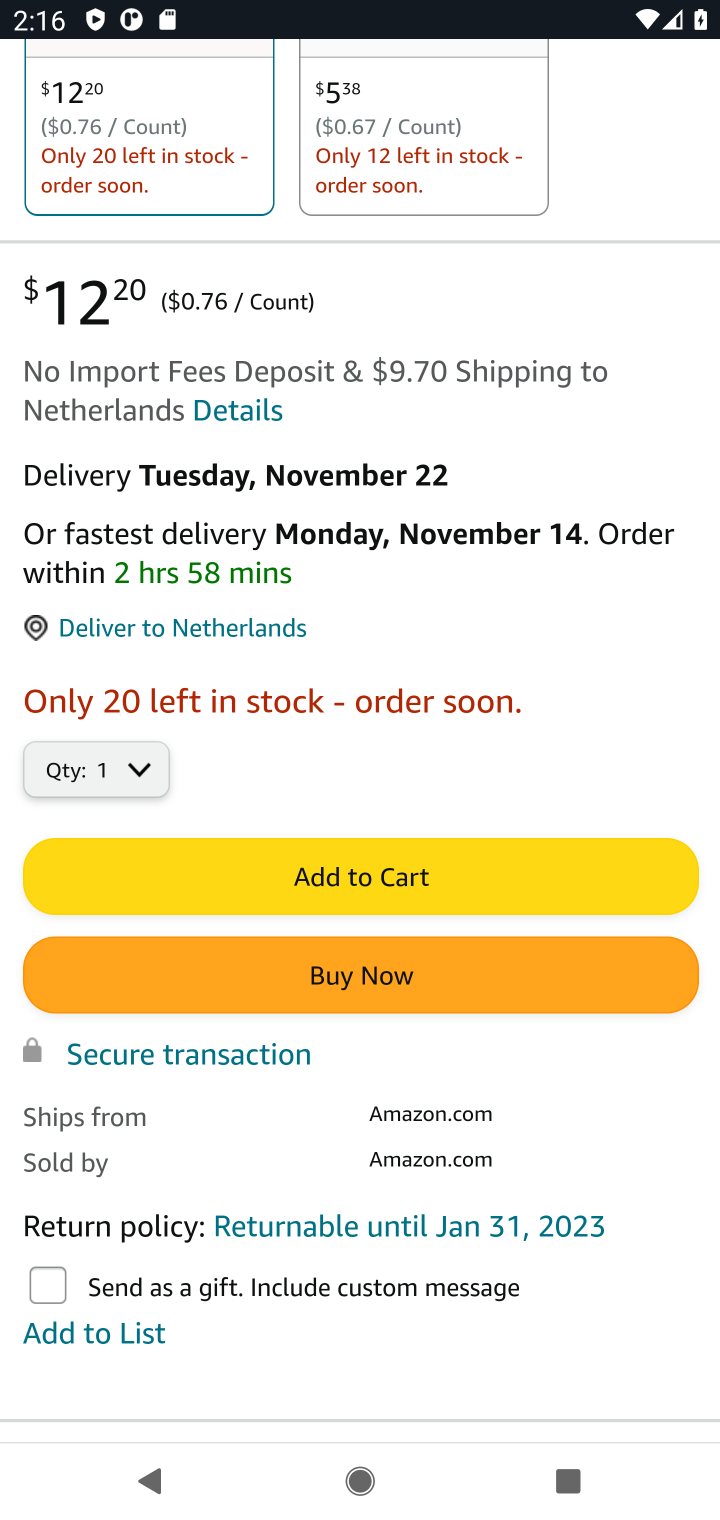
Step 27: click (381, 866)
Your task to perform on an android device: Search for "panasonic triple a" on amazon, select the first entry, add it to the cart, then select checkout. Image 28: 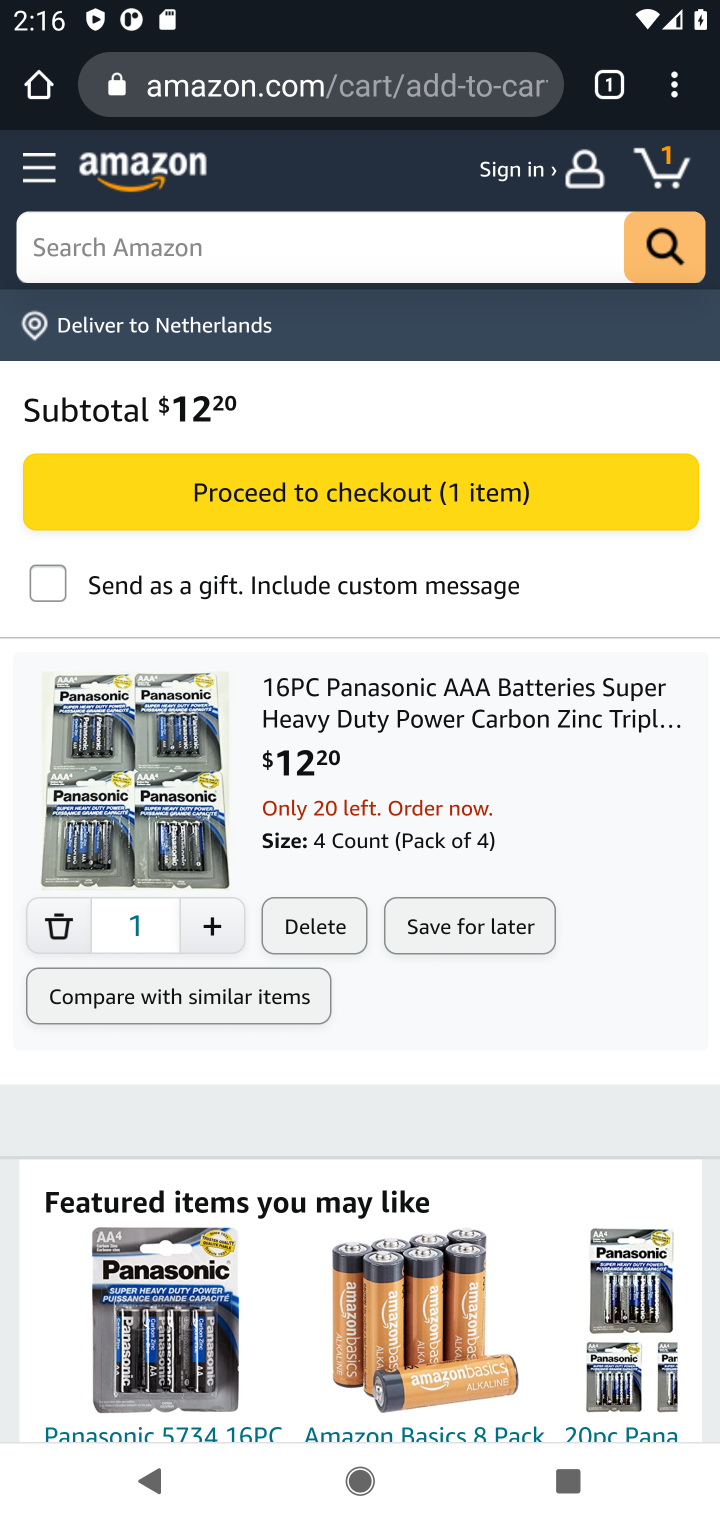
Step 28: click (360, 478)
Your task to perform on an android device: Search for "panasonic triple a" on amazon, select the first entry, add it to the cart, then select checkout. Image 29: 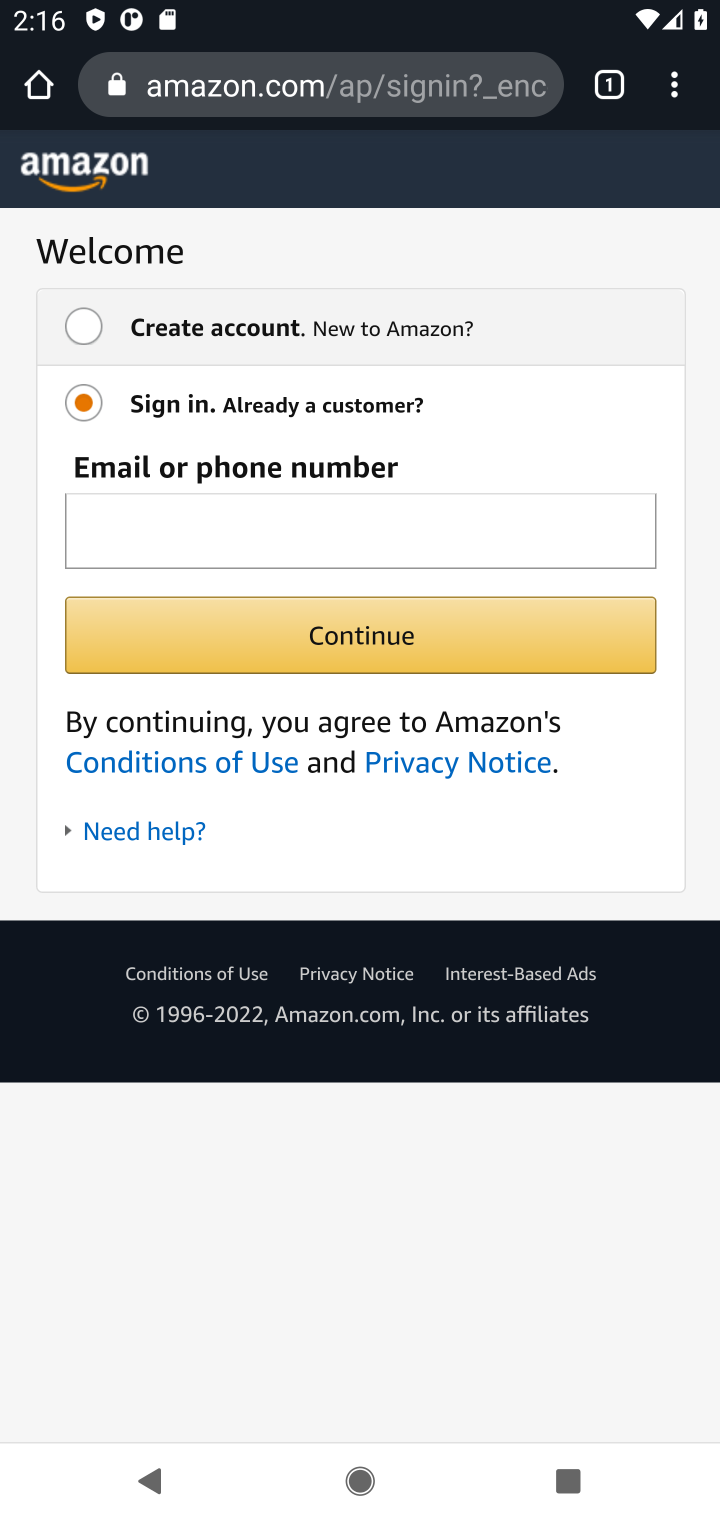
Step 29: task complete